Your task to perform on an android device: Go to accessibility settings Image 0: 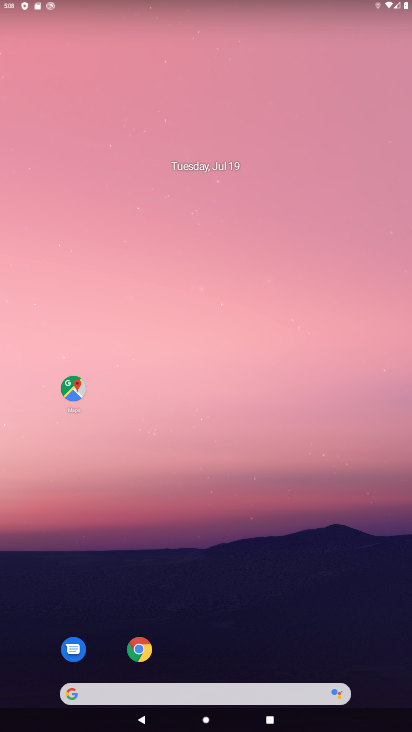
Step 0: drag from (293, 605) to (215, 146)
Your task to perform on an android device: Go to accessibility settings Image 1: 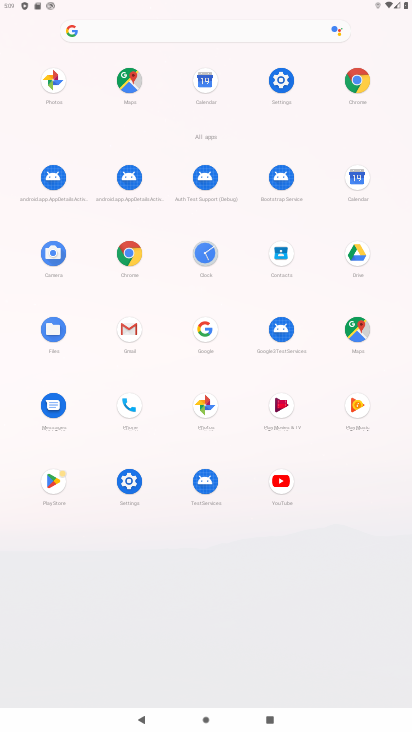
Step 1: click (273, 90)
Your task to perform on an android device: Go to accessibility settings Image 2: 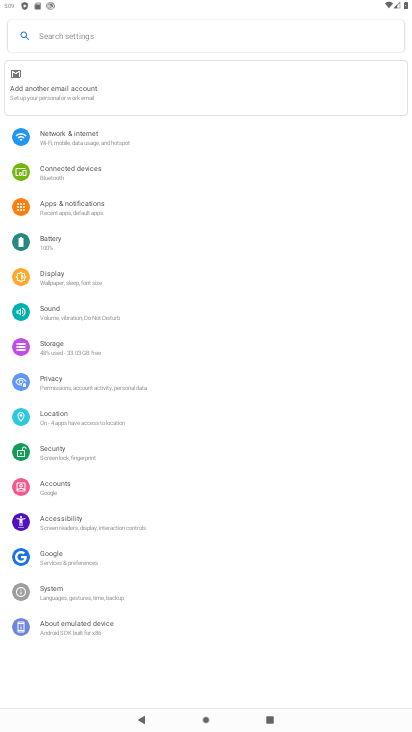
Step 2: click (269, 75)
Your task to perform on an android device: Go to accessibility settings Image 3: 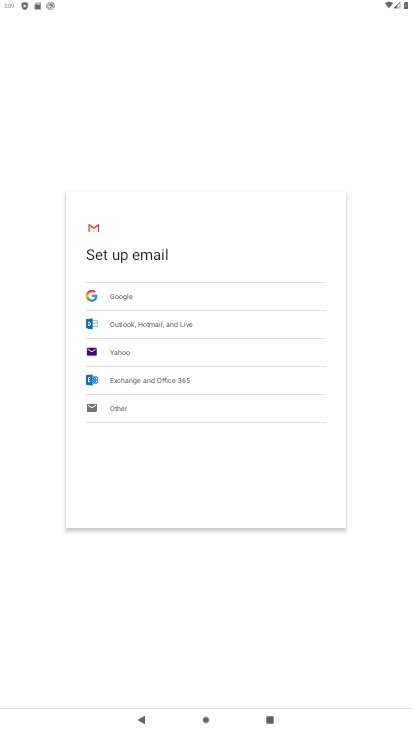
Step 3: press back button
Your task to perform on an android device: Go to accessibility settings Image 4: 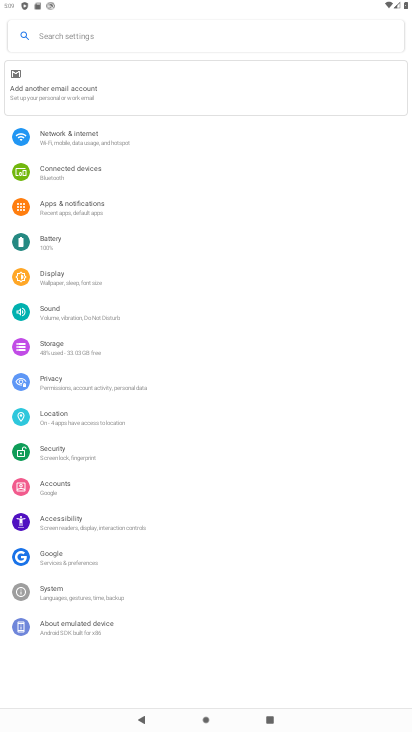
Step 4: click (68, 520)
Your task to perform on an android device: Go to accessibility settings Image 5: 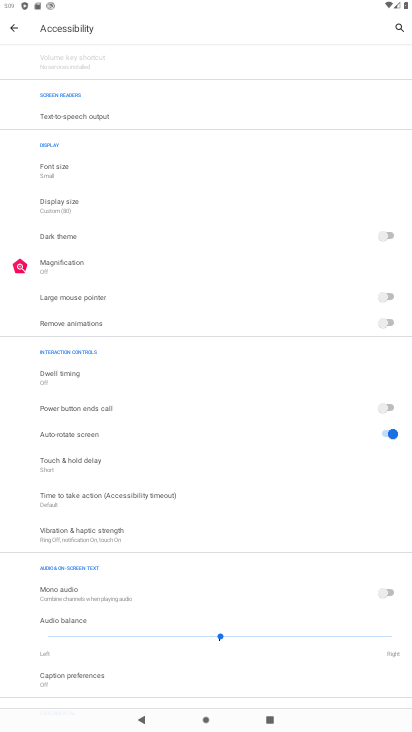
Step 5: task complete